Your task to perform on an android device: Go to ESPN.com Image 0: 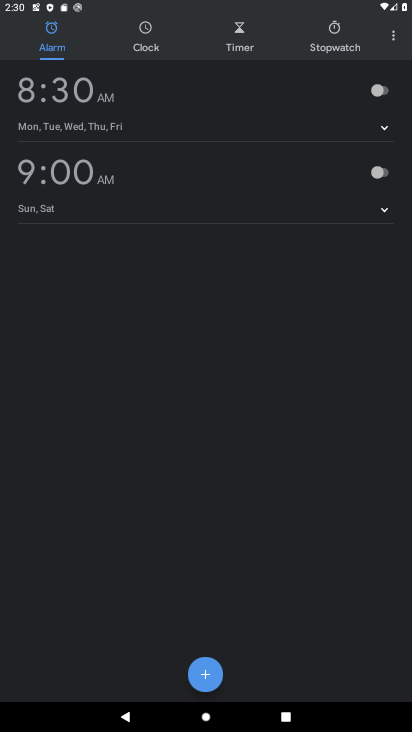
Step 0: press home button
Your task to perform on an android device: Go to ESPN.com Image 1: 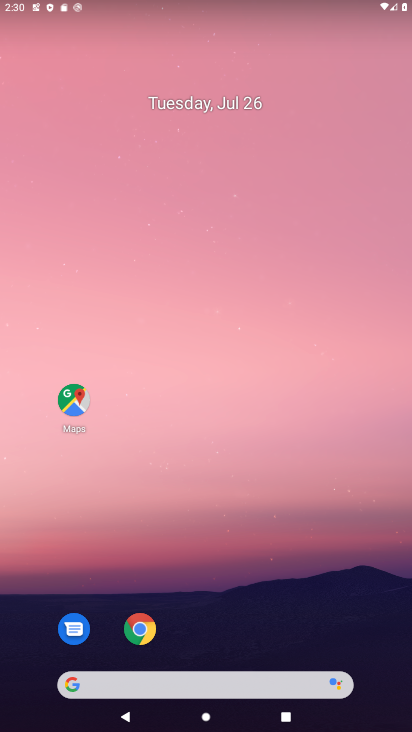
Step 1: click (159, 621)
Your task to perform on an android device: Go to ESPN.com Image 2: 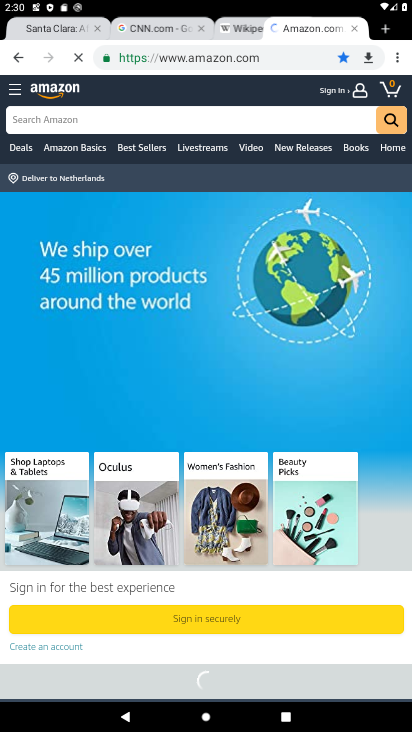
Step 2: click (388, 28)
Your task to perform on an android device: Go to ESPN.com Image 3: 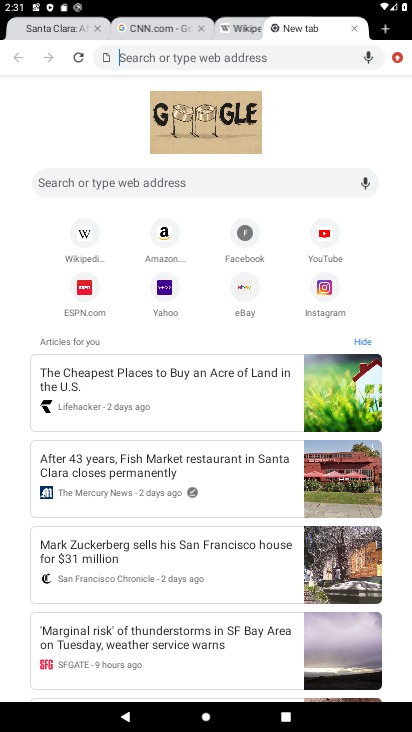
Step 3: click (79, 291)
Your task to perform on an android device: Go to ESPN.com Image 4: 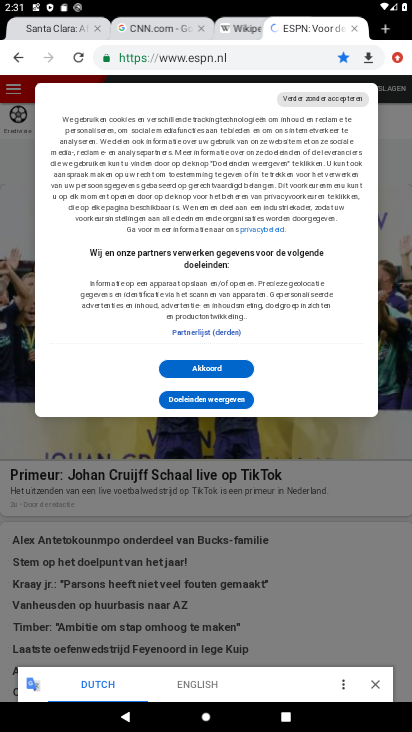
Step 4: task complete